Your task to perform on an android device: open sync settings in chrome Image 0: 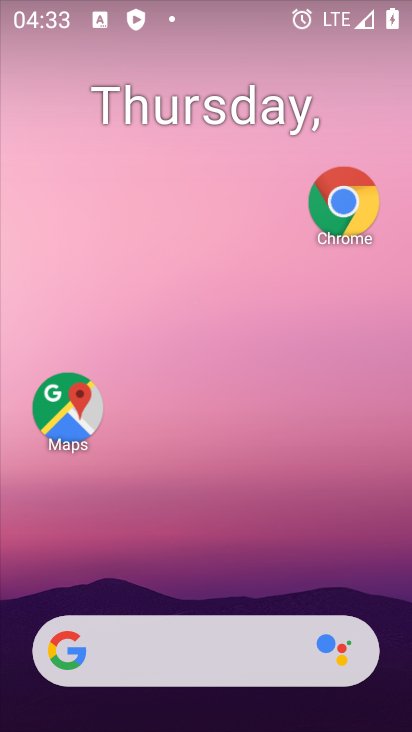
Step 0: drag from (208, 653) to (265, 0)
Your task to perform on an android device: open sync settings in chrome Image 1: 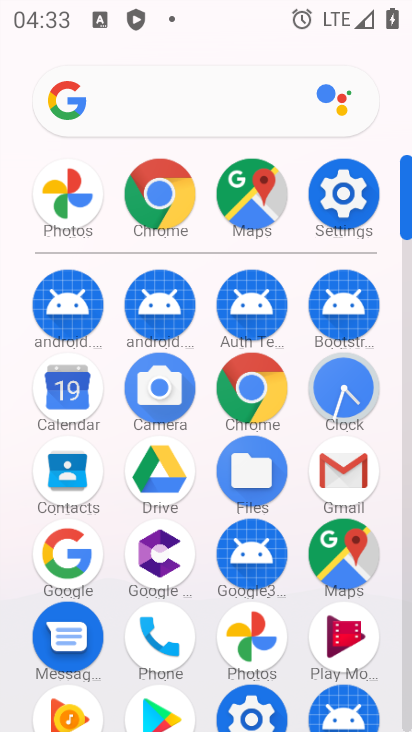
Step 1: click (246, 376)
Your task to perform on an android device: open sync settings in chrome Image 2: 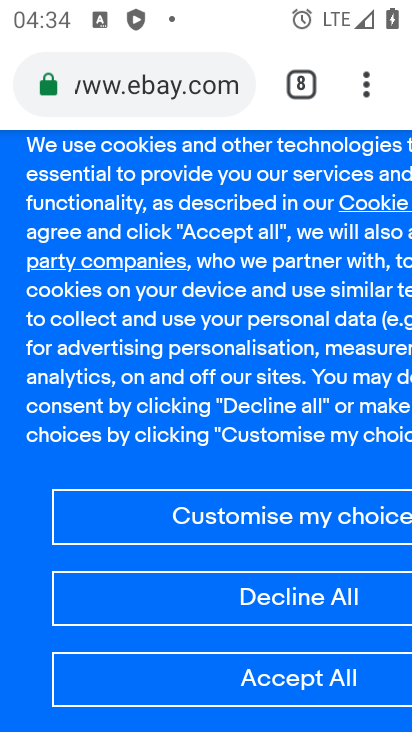
Step 2: click (366, 78)
Your task to perform on an android device: open sync settings in chrome Image 3: 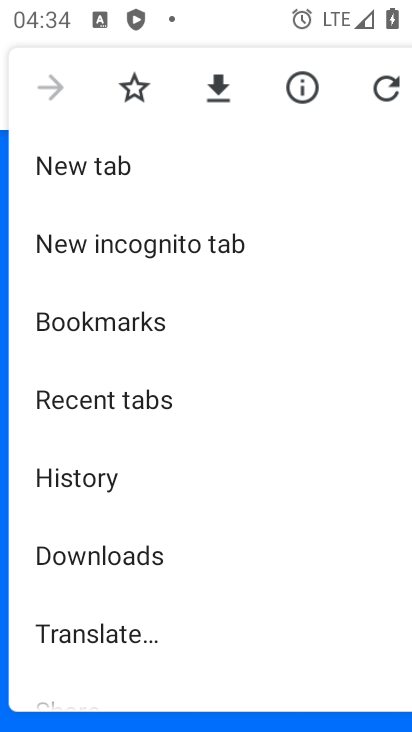
Step 3: drag from (202, 554) to (200, 69)
Your task to perform on an android device: open sync settings in chrome Image 4: 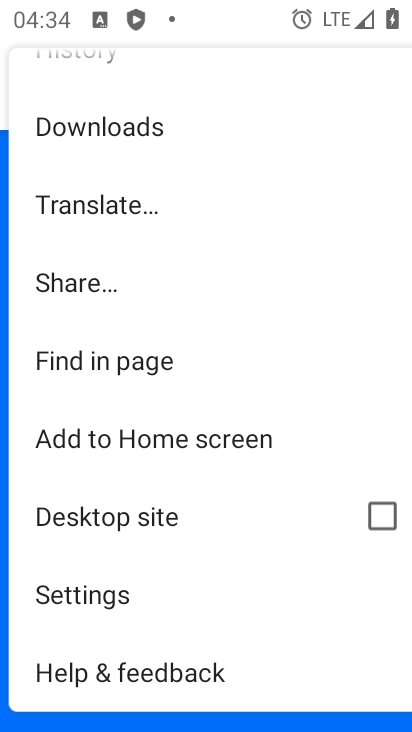
Step 4: click (131, 607)
Your task to perform on an android device: open sync settings in chrome Image 5: 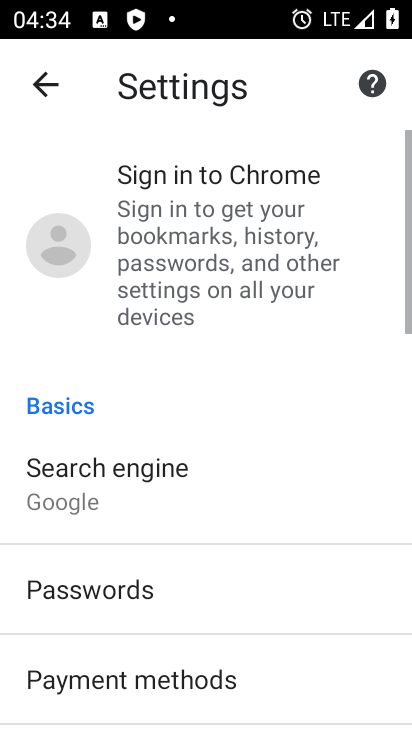
Step 5: drag from (143, 644) to (218, 133)
Your task to perform on an android device: open sync settings in chrome Image 6: 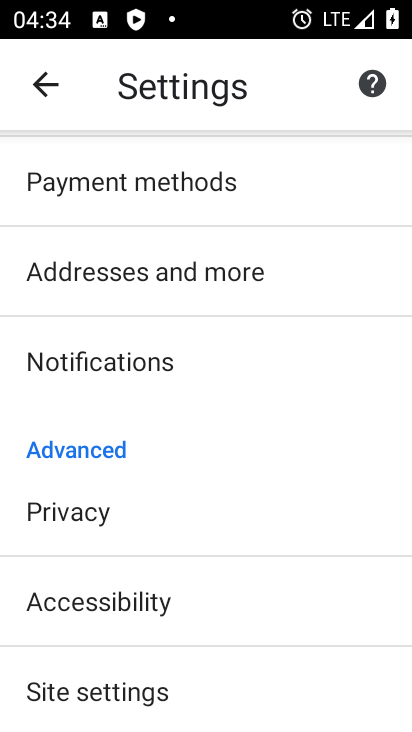
Step 6: drag from (309, 663) to (274, 140)
Your task to perform on an android device: open sync settings in chrome Image 7: 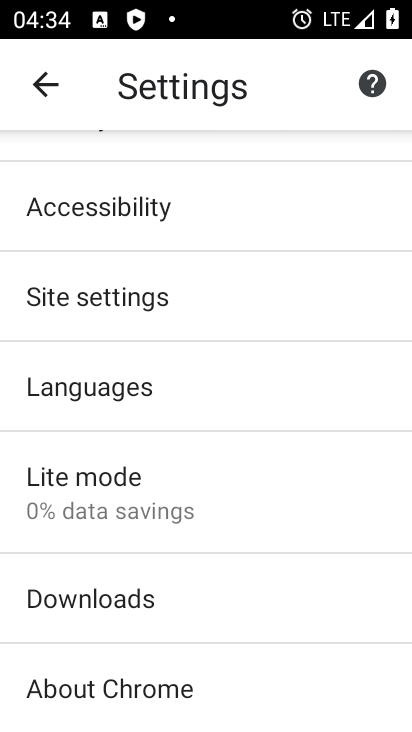
Step 7: click (115, 300)
Your task to perform on an android device: open sync settings in chrome Image 8: 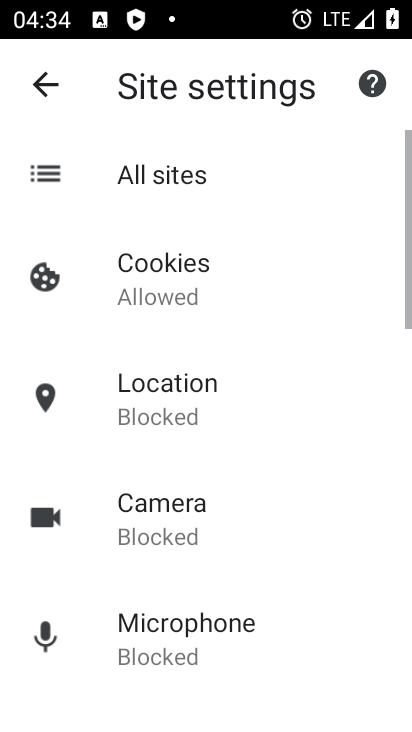
Step 8: drag from (318, 636) to (359, 150)
Your task to perform on an android device: open sync settings in chrome Image 9: 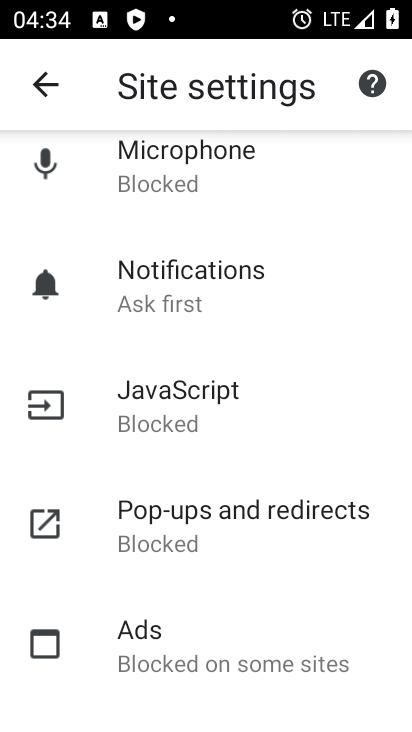
Step 9: drag from (230, 641) to (271, 312)
Your task to perform on an android device: open sync settings in chrome Image 10: 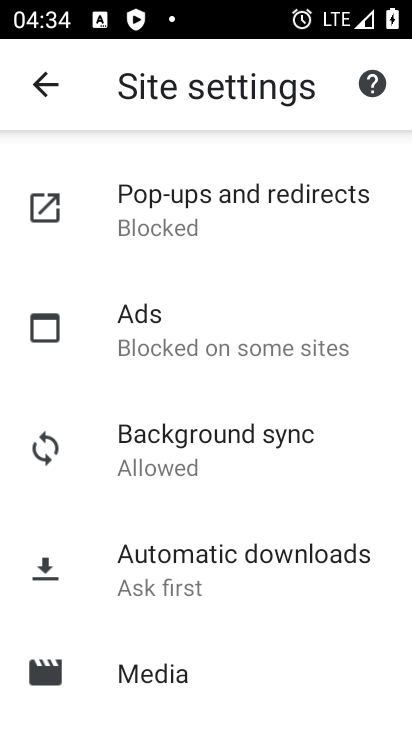
Step 10: click (285, 447)
Your task to perform on an android device: open sync settings in chrome Image 11: 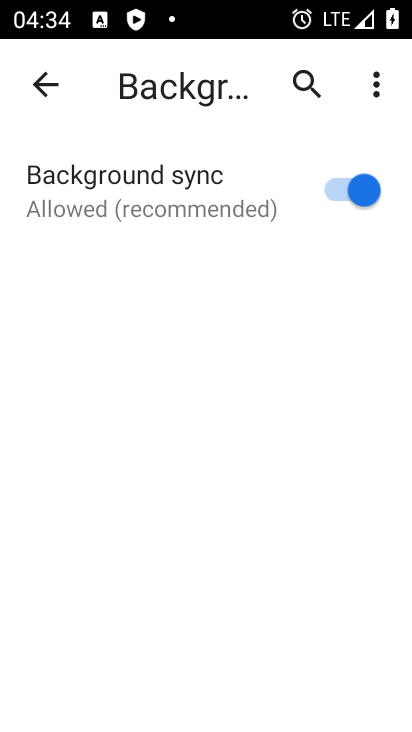
Step 11: task complete